Your task to perform on an android device: Add logitech g pro to the cart on newegg.com, then select checkout. Image 0: 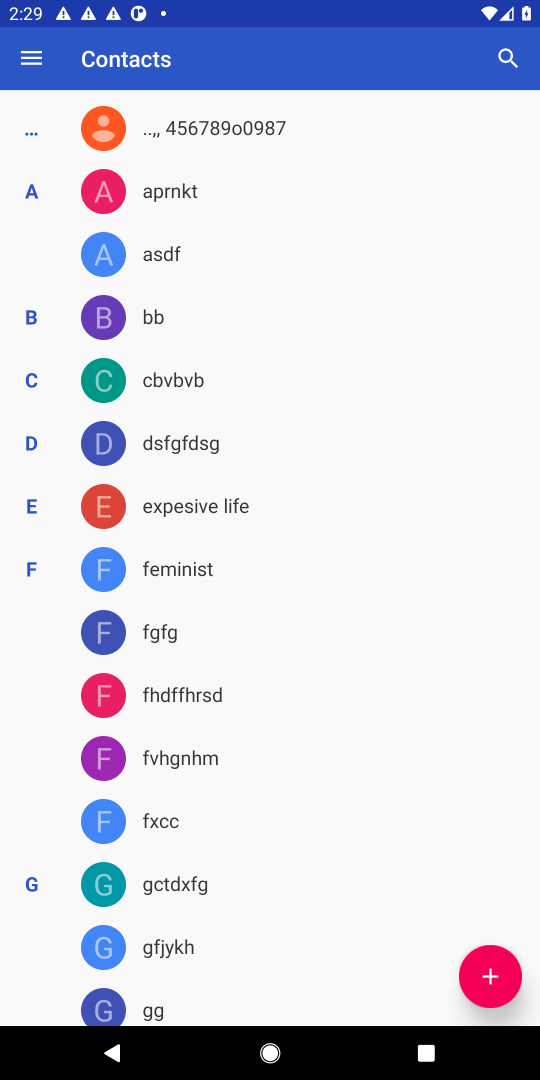
Step 0: press home button
Your task to perform on an android device: Add logitech g pro to the cart on newegg.com, then select checkout. Image 1: 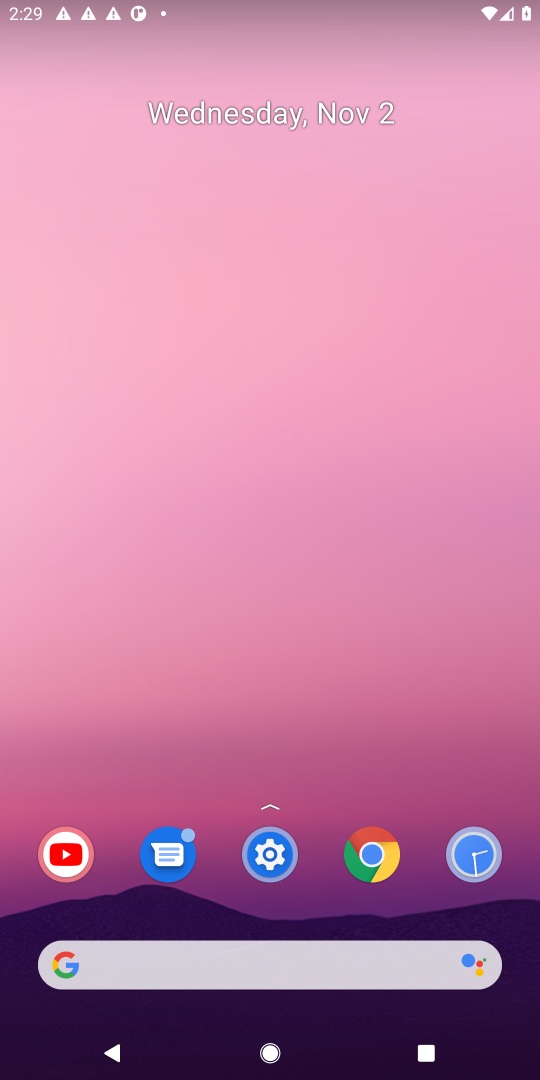
Step 1: click (270, 969)
Your task to perform on an android device: Add logitech g pro to the cart on newegg.com, then select checkout. Image 2: 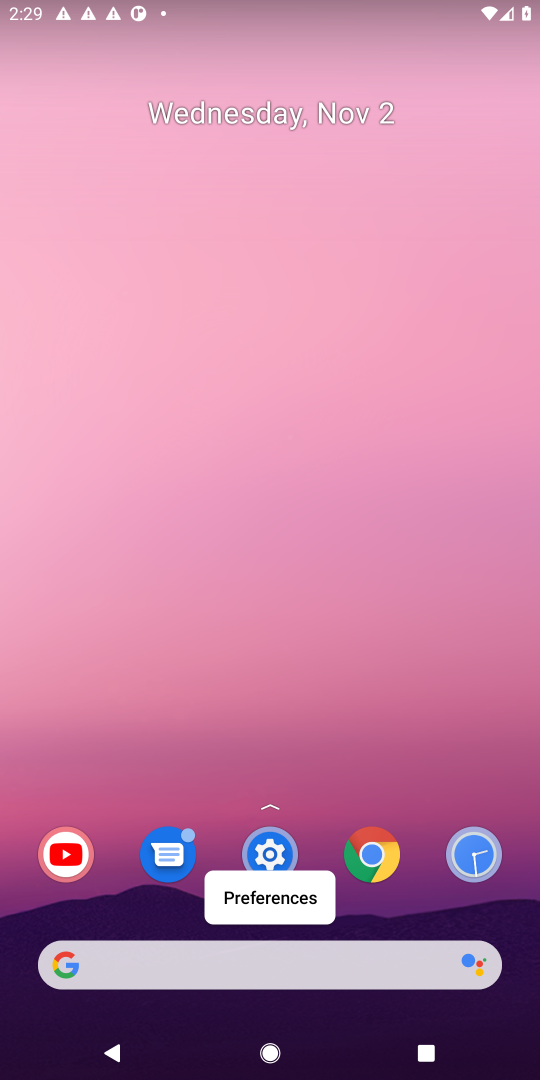
Step 2: click (366, 964)
Your task to perform on an android device: Add logitech g pro to the cart on newegg.com, then select checkout. Image 3: 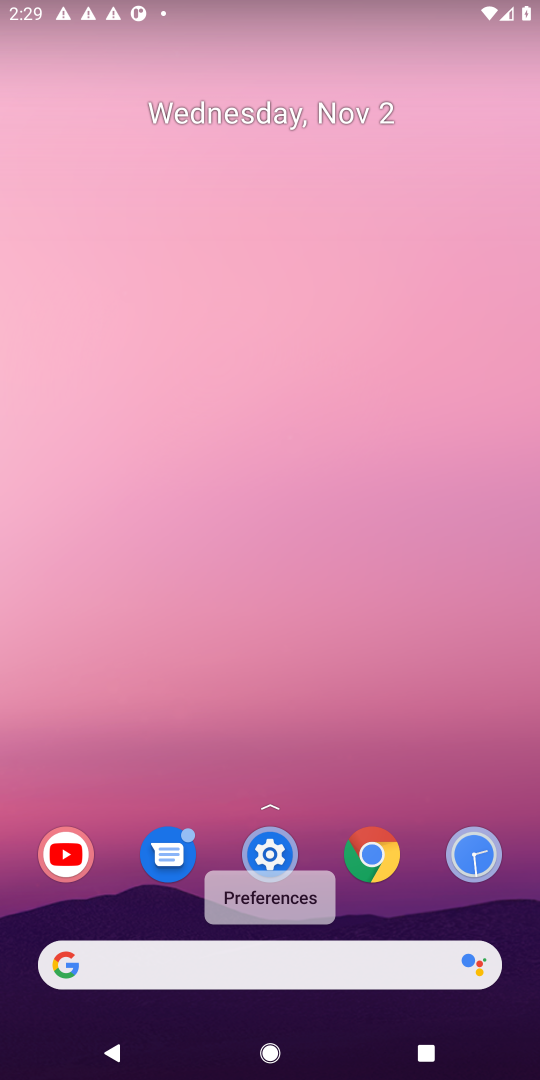
Step 3: click (366, 964)
Your task to perform on an android device: Add logitech g pro to the cart on newegg.com, then select checkout. Image 4: 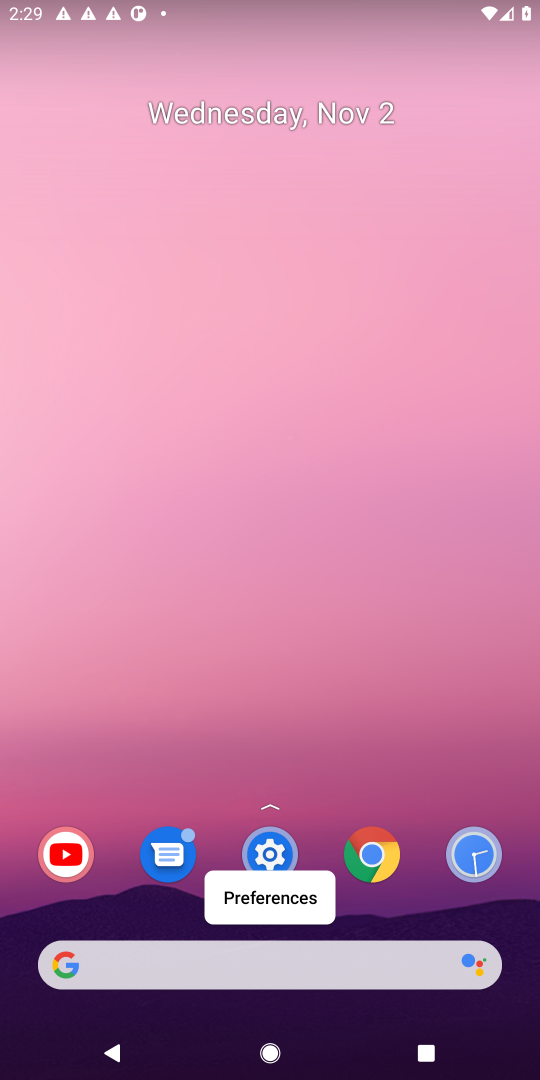
Step 4: click (263, 957)
Your task to perform on an android device: Add logitech g pro to the cart on newegg.com, then select checkout. Image 5: 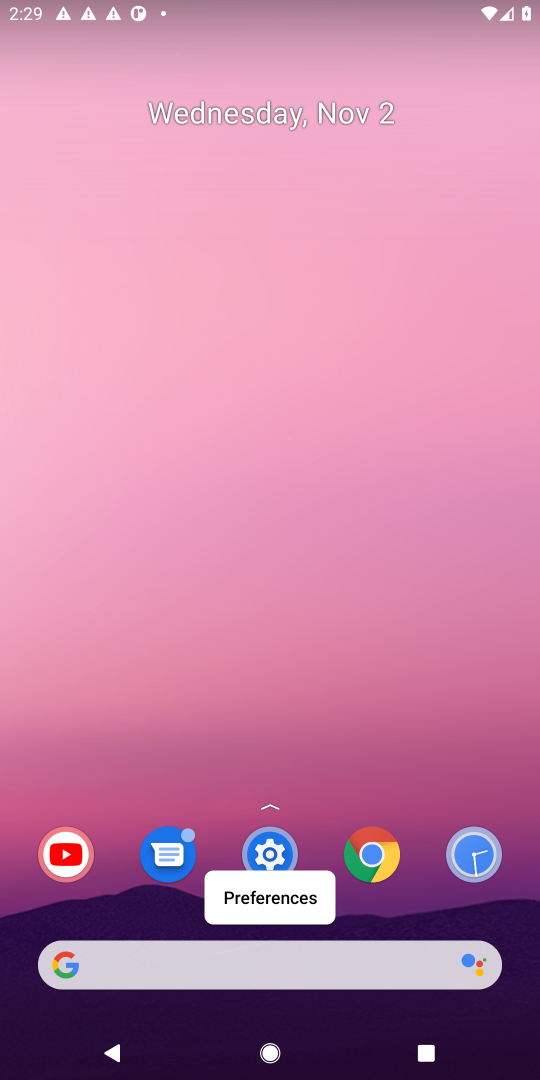
Step 5: click (346, 963)
Your task to perform on an android device: Add logitech g pro to the cart on newegg.com, then select checkout. Image 6: 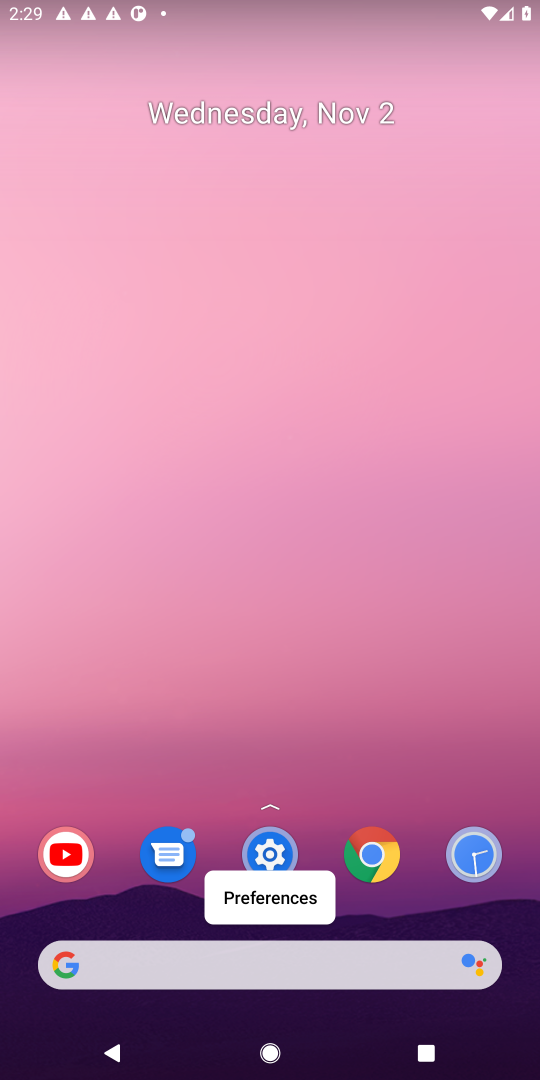
Step 6: click (335, 956)
Your task to perform on an android device: Add logitech g pro to the cart on newegg.com, then select checkout. Image 7: 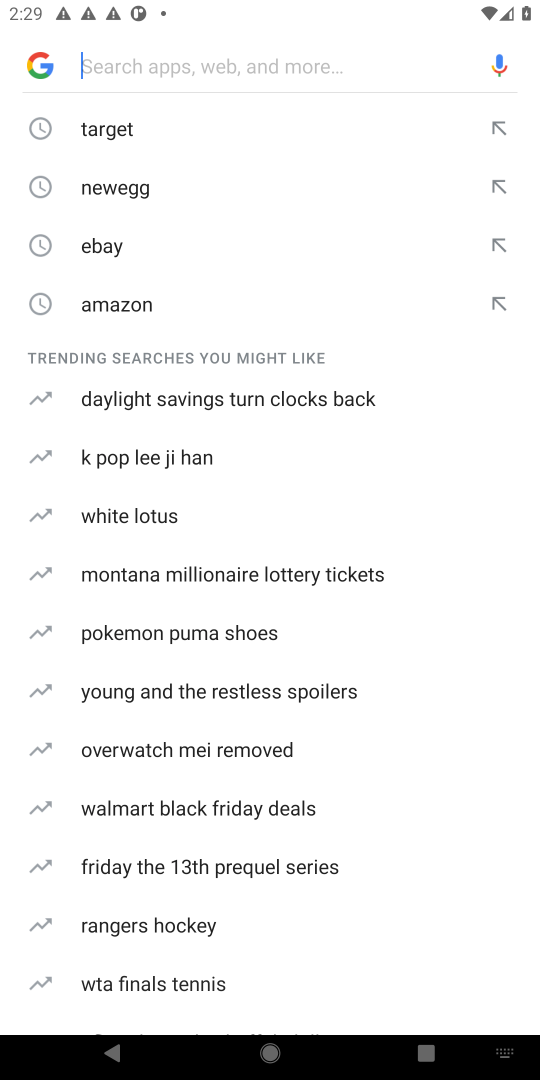
Step 7: click (337, 954)
Your task to perform on an android device: Add logitech g pro to the cart on newegg.com, then select checkout. Image 8: 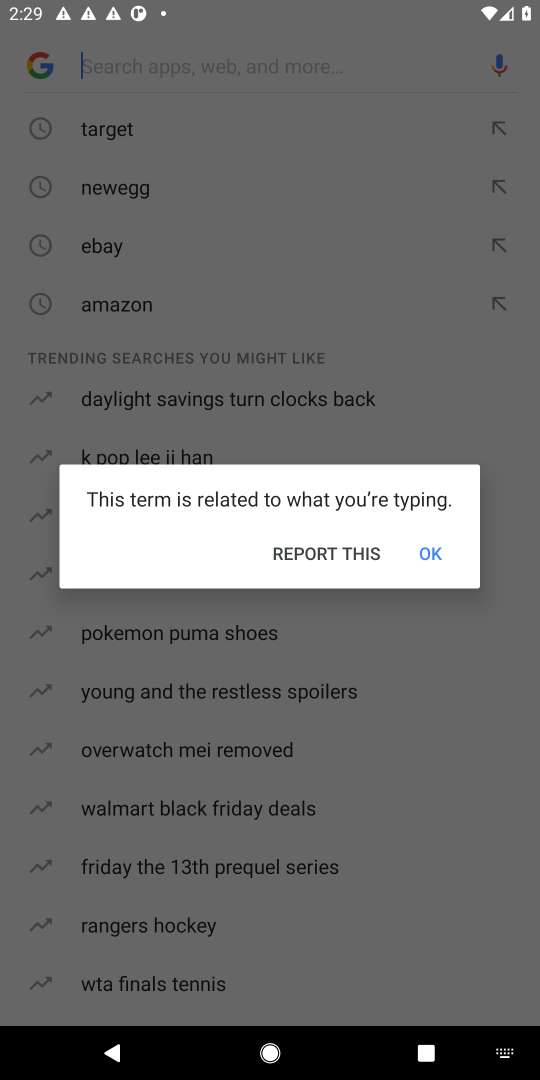
Step 8: type "newegg.com"
Your task to perform on an android device: Add logitech g pro to the cart on newegg.com, then select checkout. Image 9: 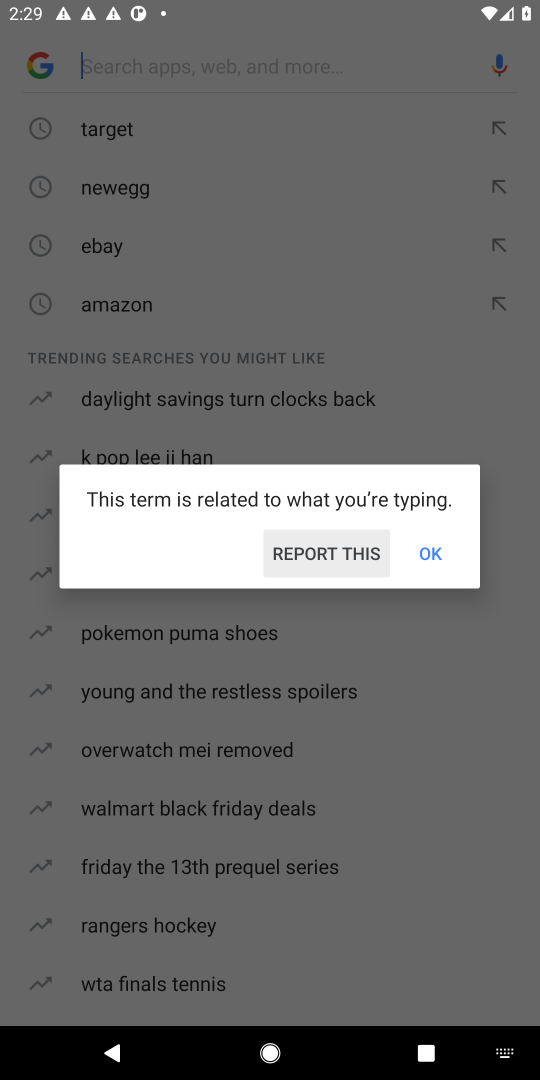
Step 9: type ""
Your task to perform on an android device: Add logitech g pro to the cart on newegg.com, then select checkout. Image 10: 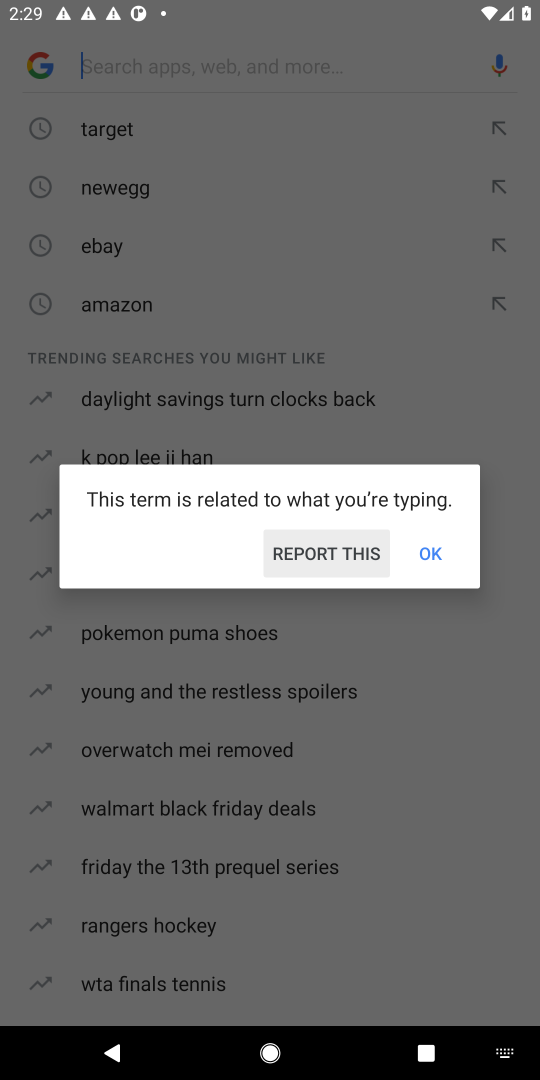
Step 10: press enter
Your task to perform on an android device: Add logitech g pro to the cart on newegg.com, then select checkout. Image 11: 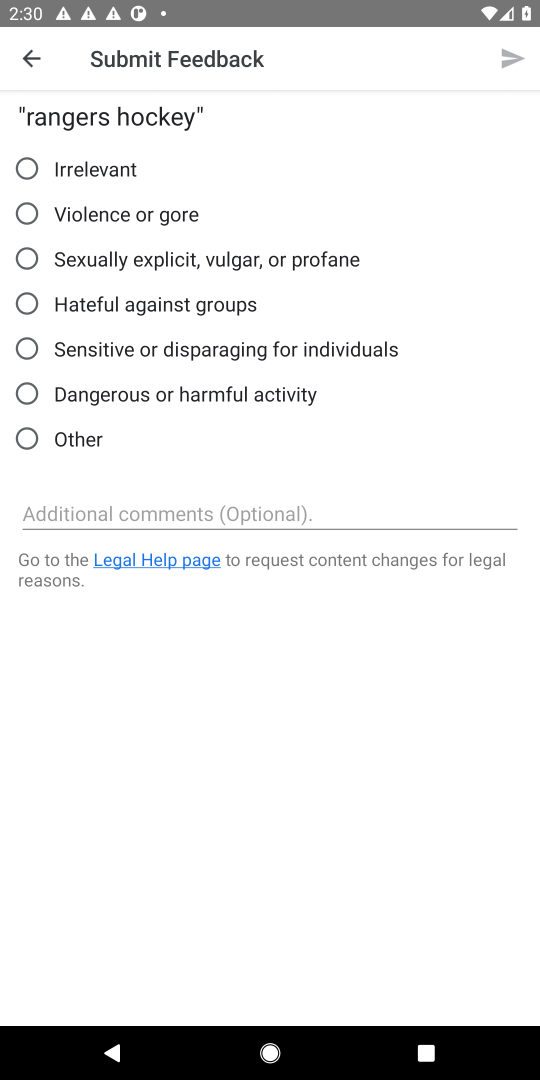
Step 11: click (28, 62)
Your task to perform on an android device: Add logitech g pro to the cart on newegg.com, then select checkout. Image 12: 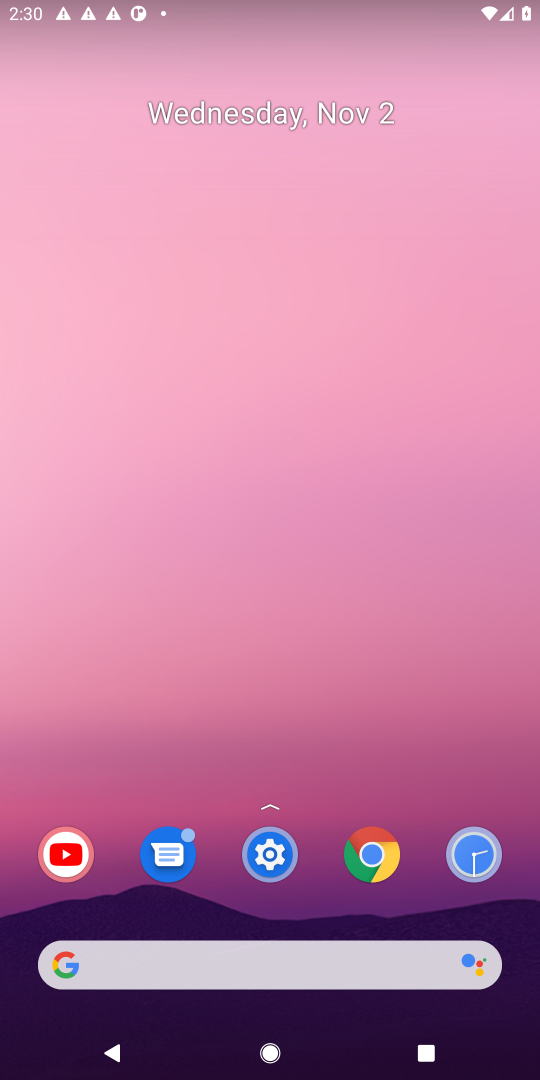
Step 12: click (380, 947)
Your task to perform on an android device: Add logitech g pro to the cart on newegg.com, then select checkout. Image 13: 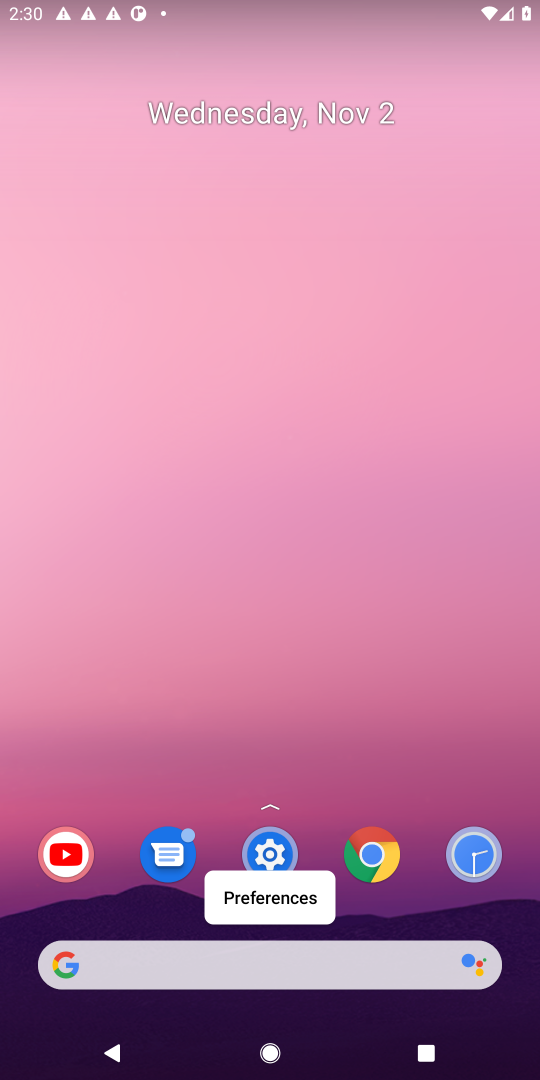
Step 13: click (384, 948)
Your task to perform on an android device: Add logitech g pro to the cart on newegg.com, then select checkout. Image 14: 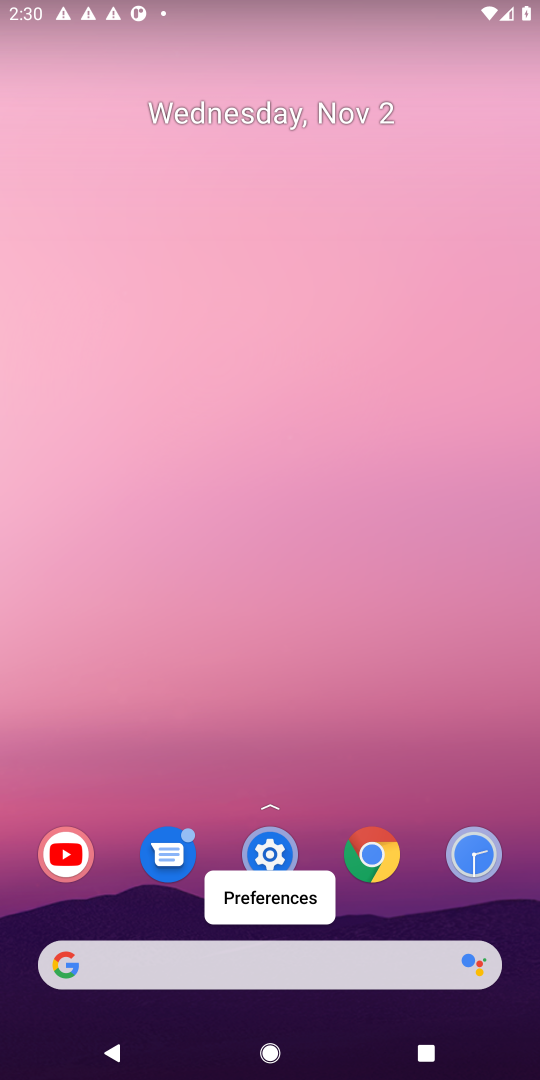
Step 14: click (387, 966)
Your task to perform on an android device: Add logitech g pro to the cart on newegg.com, then select checkout. Image 15: 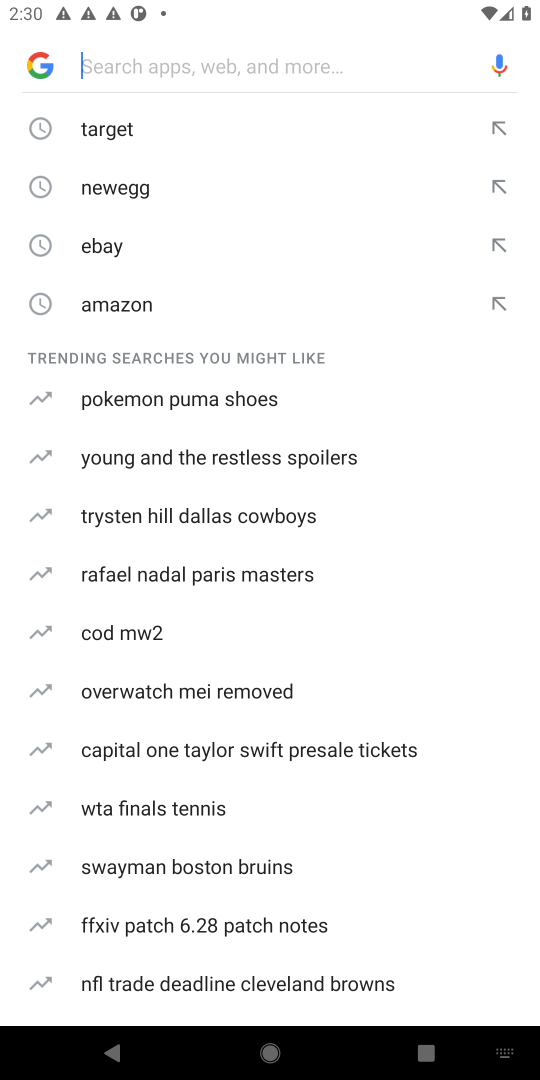
Step 15: click (394, 960)
Your task to perform on an android device: Add logitech g pro to the cart on newegg.com, then select checkout. Image 16: 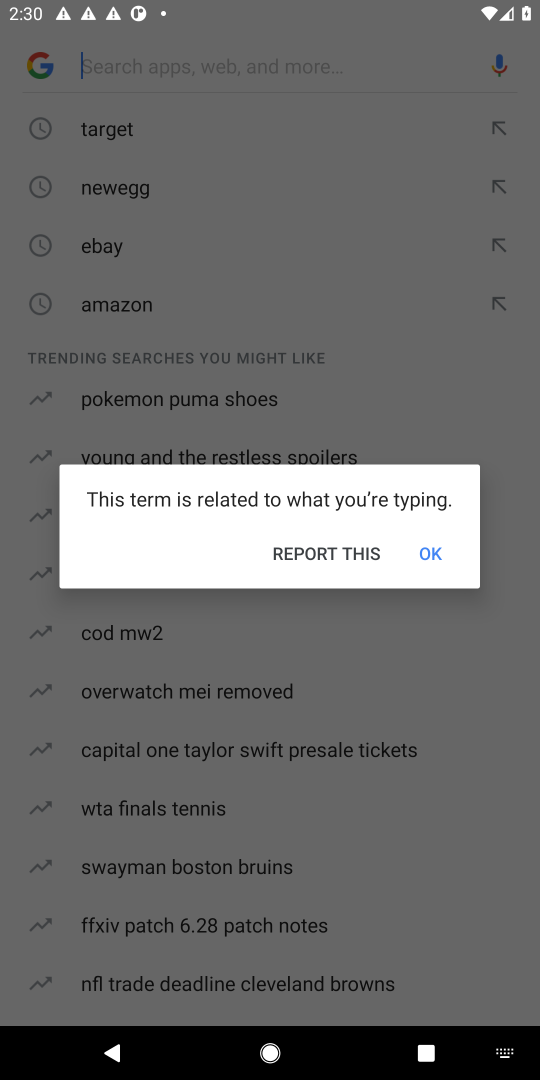
Step 16: click (394, 960)
Your task to perform on an android device: Add logitech g pro to the cart on newegg.com, then select checkout. Image 17: 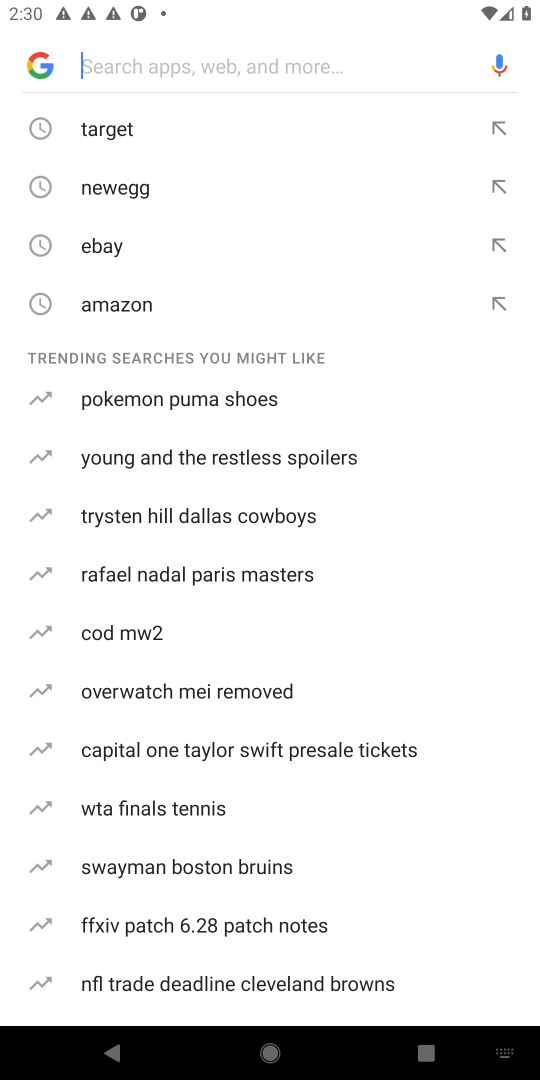
Step 17: click (394, 960)
Your task to perform on an android device: Add logitech g pro to the cart on newegg.com, then select checkout. Image 18: 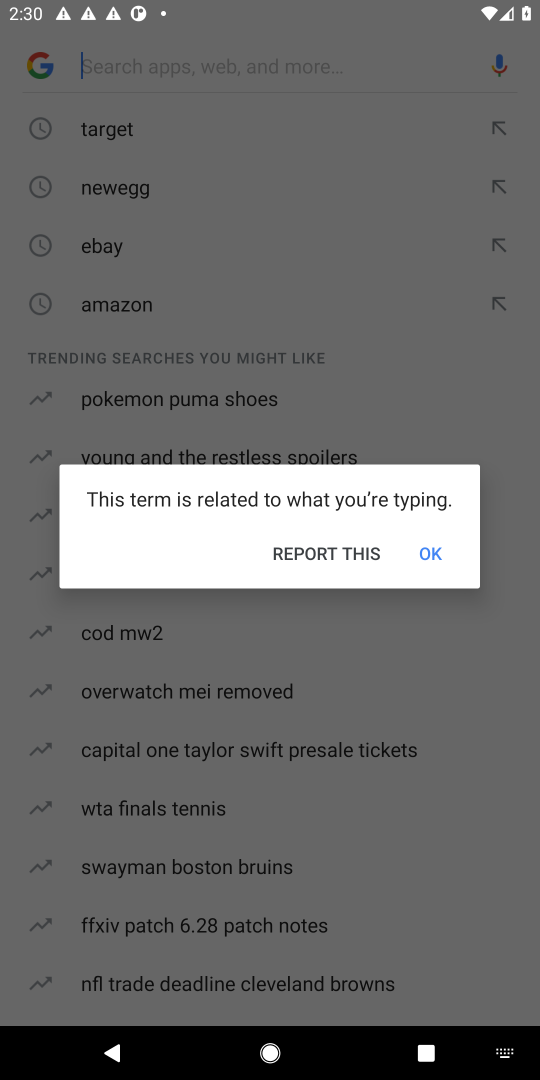
Step 18: click (467, 613)
Your task to perform on an android device: Add logitech g pro to the cart on newegg.com, then select checkout. Image 19: 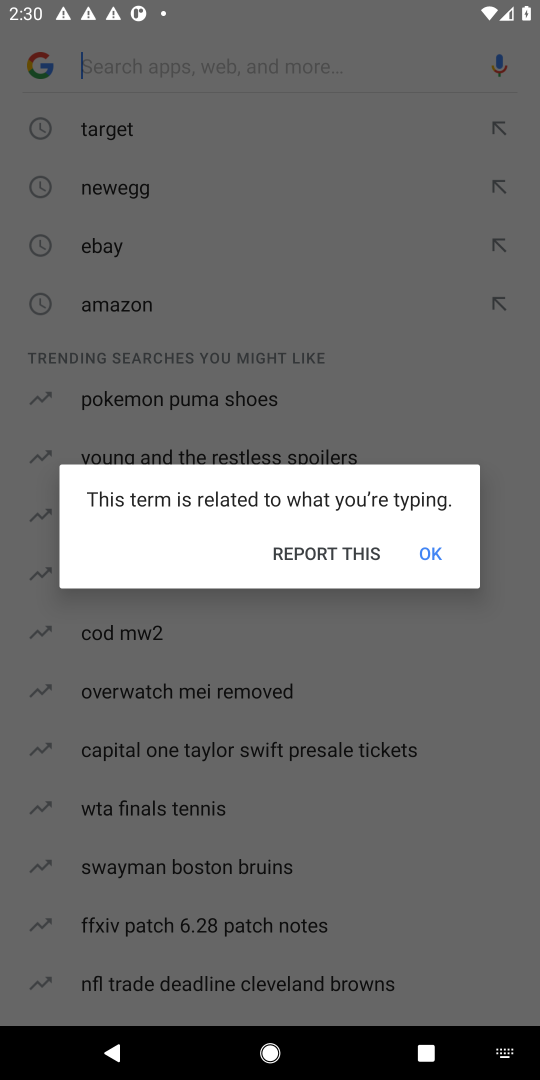
Step 19: click (436, 561)
Your task to perform on an android device: Add logitech g pro to the cart on newegg.com, then select checkout. Image 20: 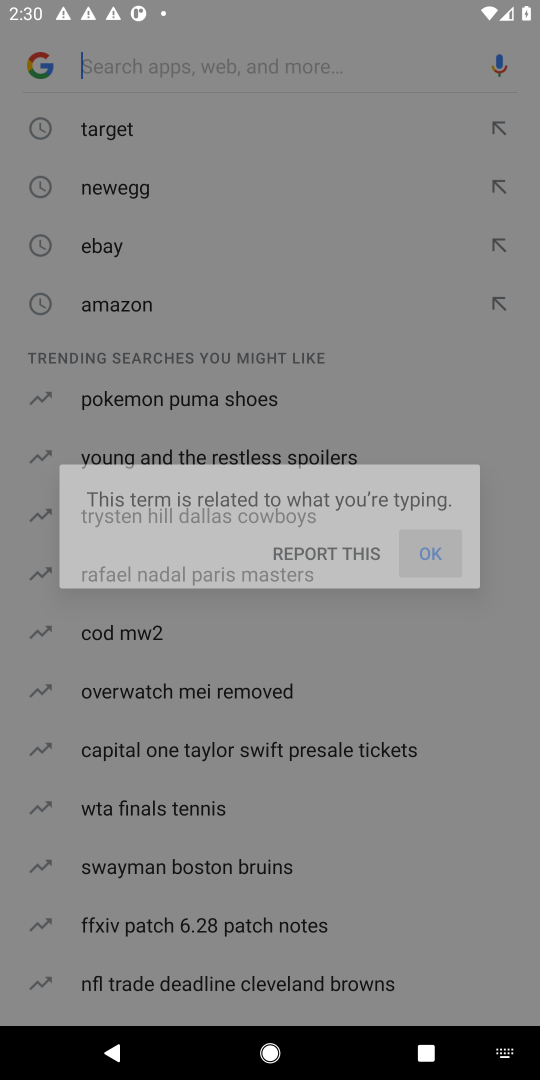
Step 20: click (421, 544)
Your task to perform on an android device: Add logitech g pro to the cart on newegg.com, then select checkout. Image 21: 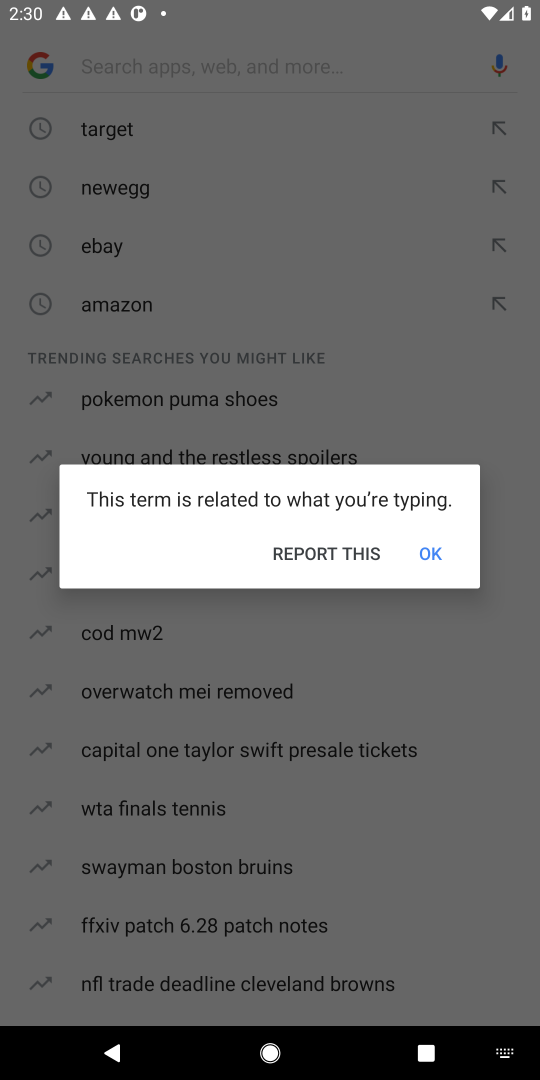
Step 21: click (438, 565)
Your task to perform on an android device: Add logitech g pro to the cart on newegg.com, then select checkout. Image 22: 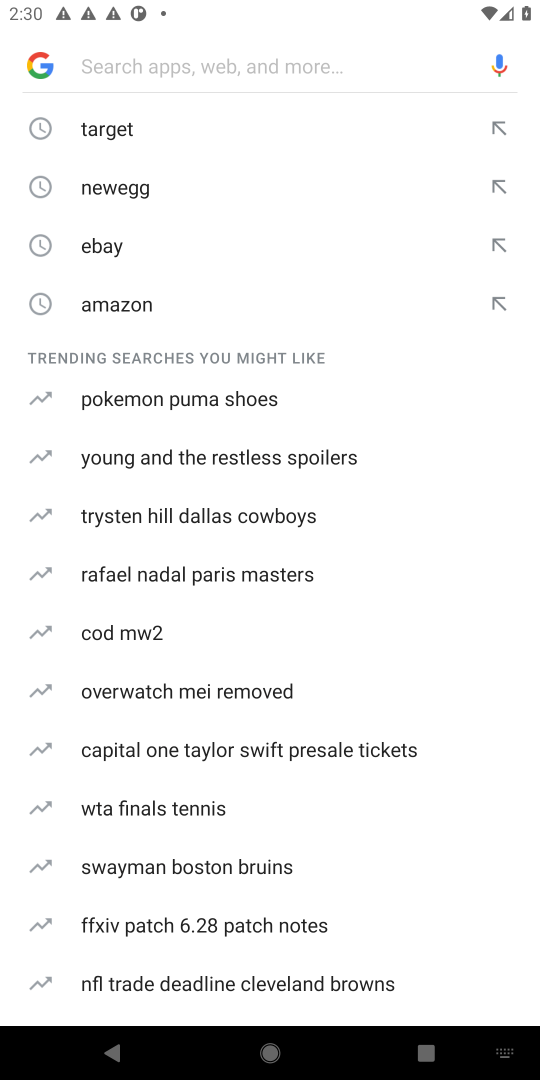
Step 22: click (130, 200)
Your task to perform on an android device: Add logitech g pro to the cart on newegg.com, then select checkout. Image 23: 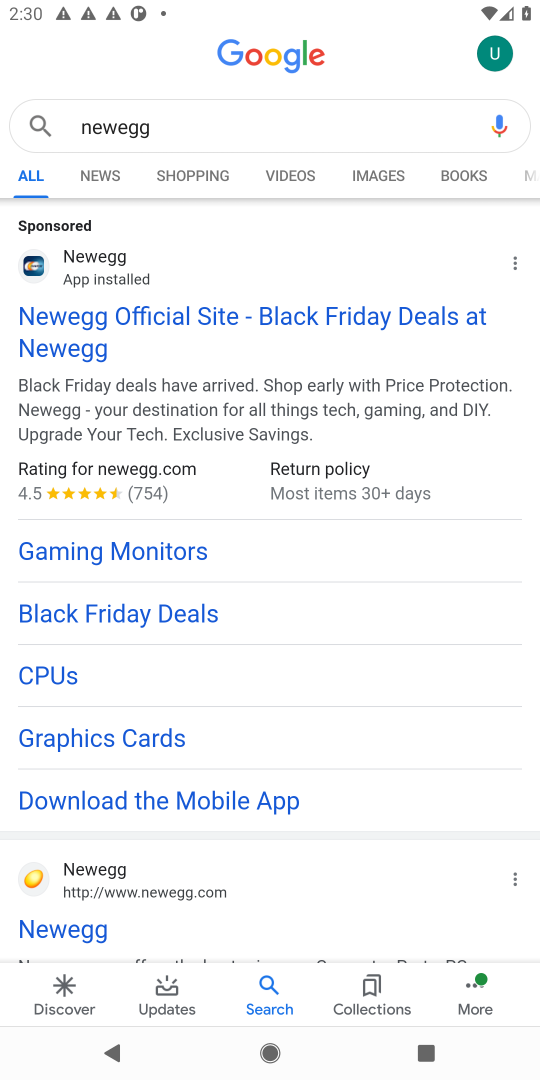
Step 23: click (147, 340)
Your task to perform on an android device: Add logitech g pro to the cart on newegg.com, then select checkout. Image 24: 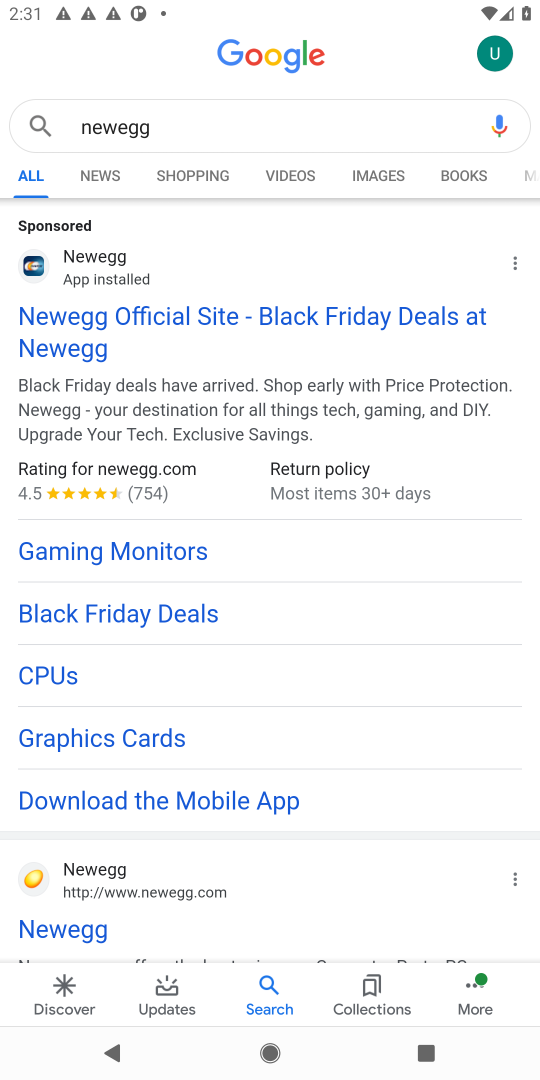
Step 24: click (145, 330)
Your task to perform on an android device: Add logitech g pro to the cart on newegg.com, then select checkout. Image 25: 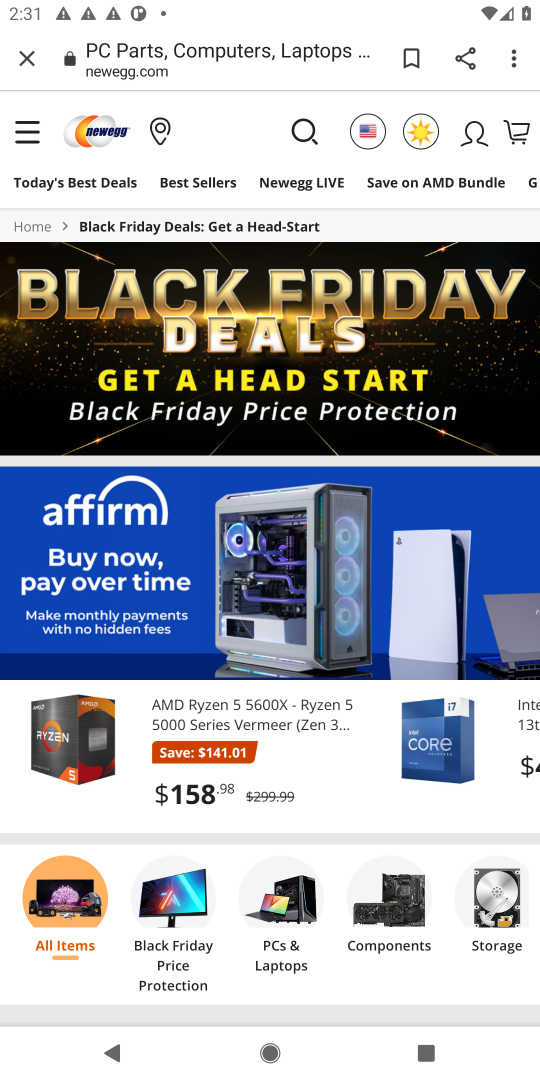
Step 25: drag from (254, 868) to (206, 491)
Your task to perform on an android device: Add logitech g pro to the cart on newegg.com, then select checkout. Image 26: 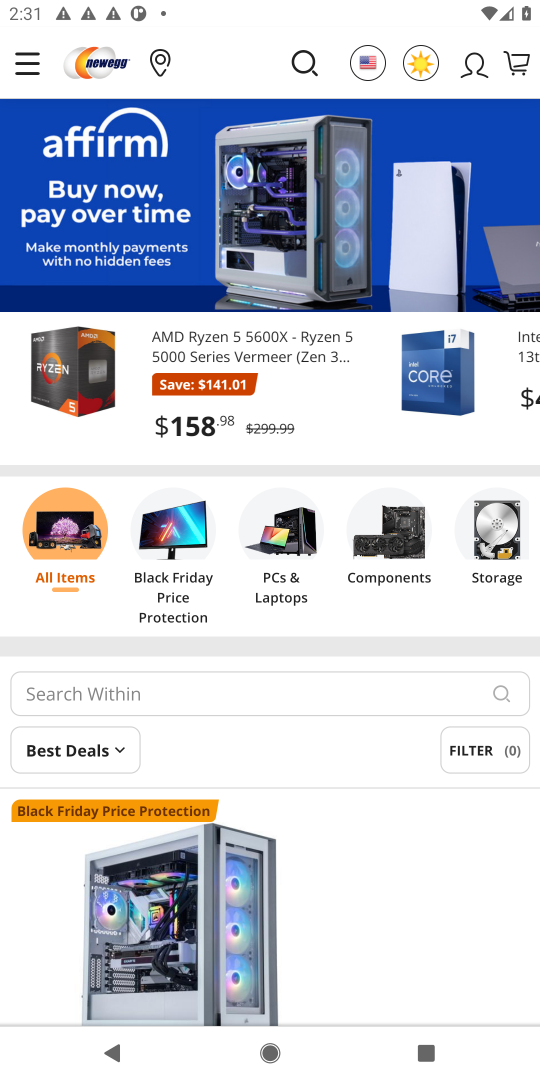
Step 26: click (257, 707)
Your task to perform on an android device: Add logitech g pro to the cart on newegg.com, then select checkout. Image 27: 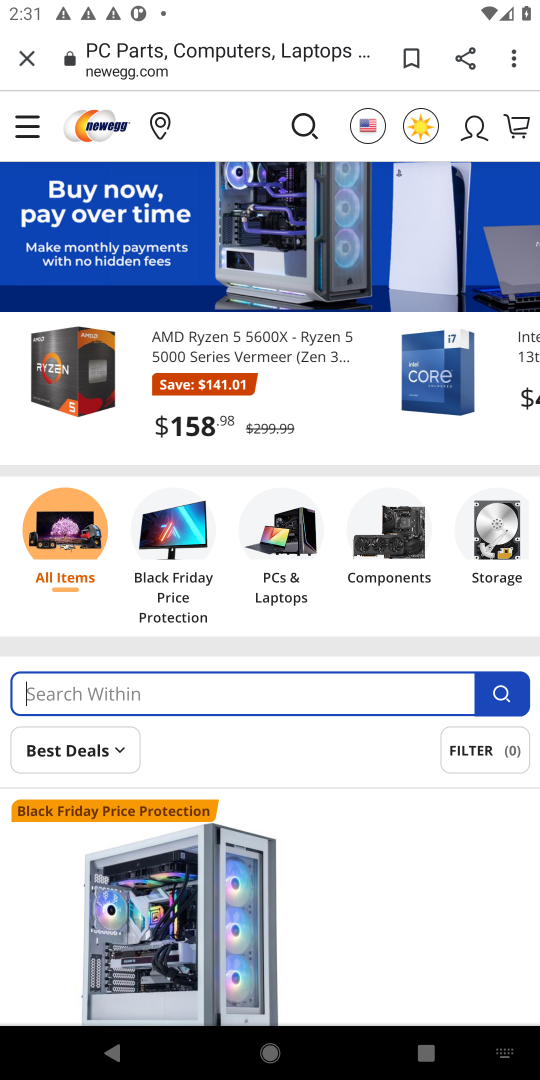
Step 27: type " logitech g pro"
Your task to perform on an android device: Add logitech g pro to the cart on newegg.com, then select checkout. Image 28: 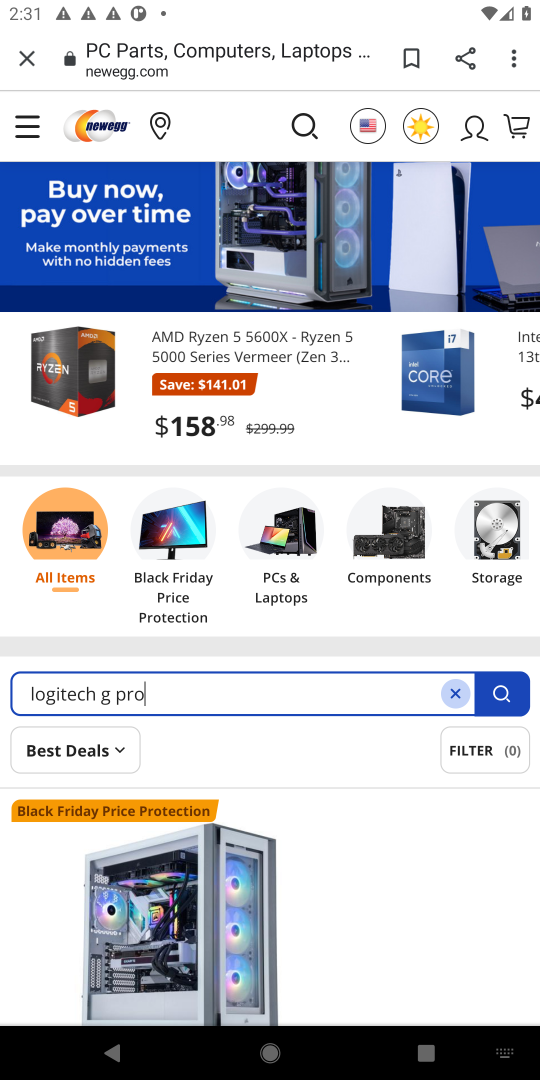
Step 28: type ""
Your task to perform on an android device: Add logitech g pro to the cart on newegg.com, then select checkout. Image 29: 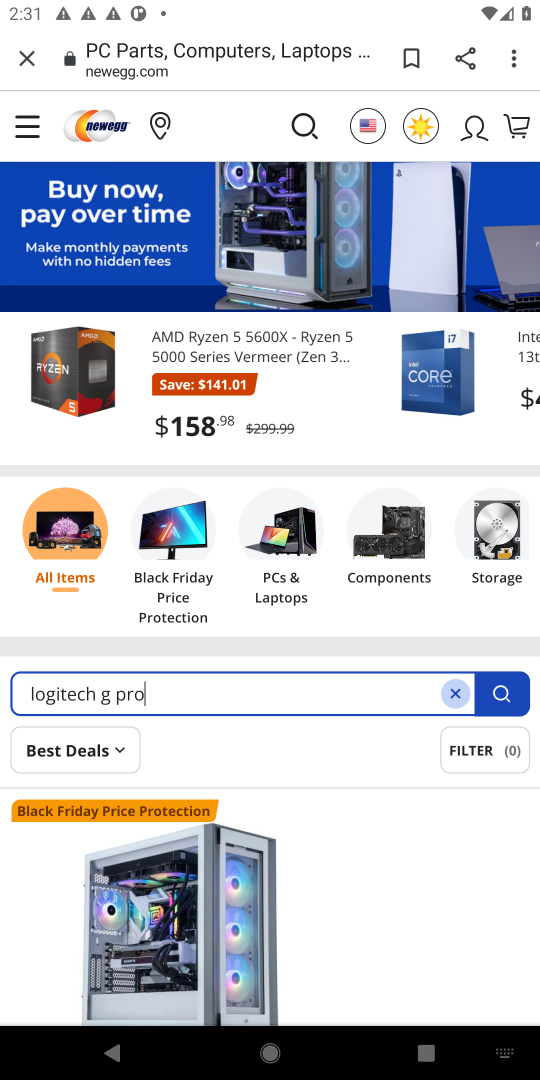
Step 29: press enter
Your task to perform on an android device: Add logitech g pro to the cart on newegg.com, then select checkout. Image 30: 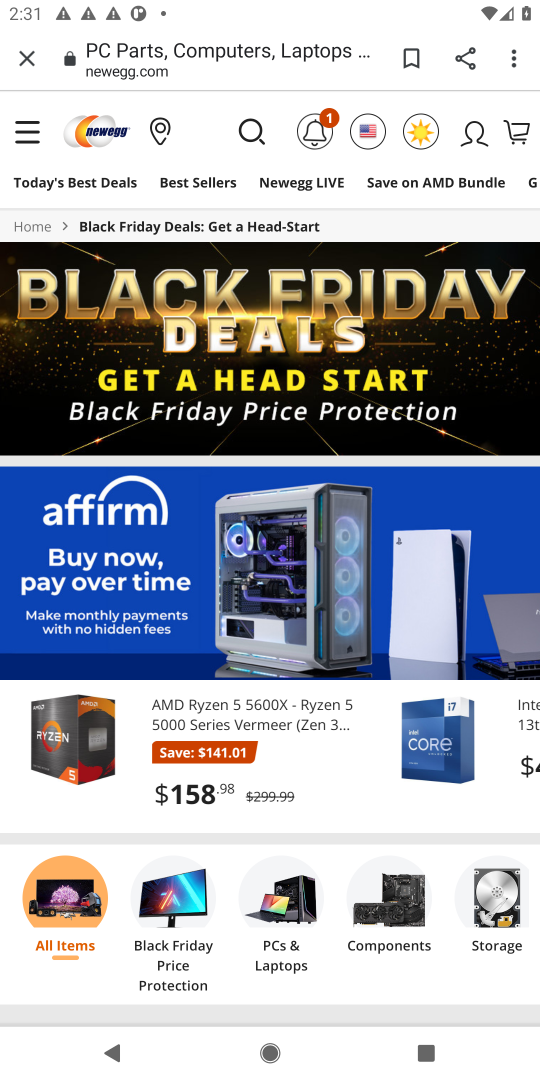
Step 30: drag from (367, 865) to (287, 366)
Your task to perform on an android device: Add logitech g pro to the cart on newegg.com, then select checkout. Image 31: 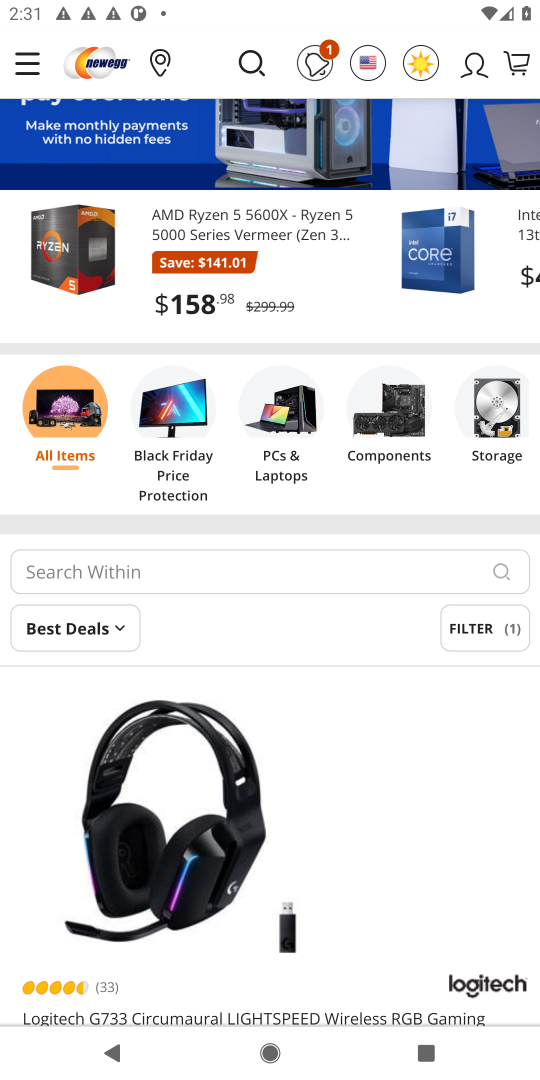
Step 31: drag from (398, 800) to (346, 454)
Your task to perform on an android device: Add logitech g pro to the cart on newegg.com, then select checkout. Image 32: 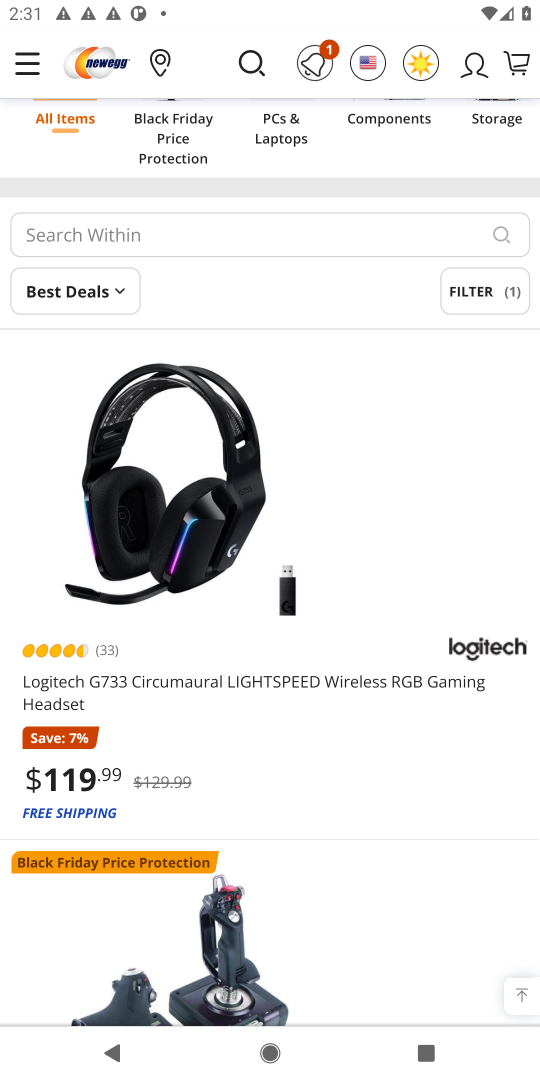
Step 32: drag from (285, 762) to (269, 489)
Your task to perform on an android device: Add logitech g pro to the cart on newegg.com, then select checkout. Image 33: 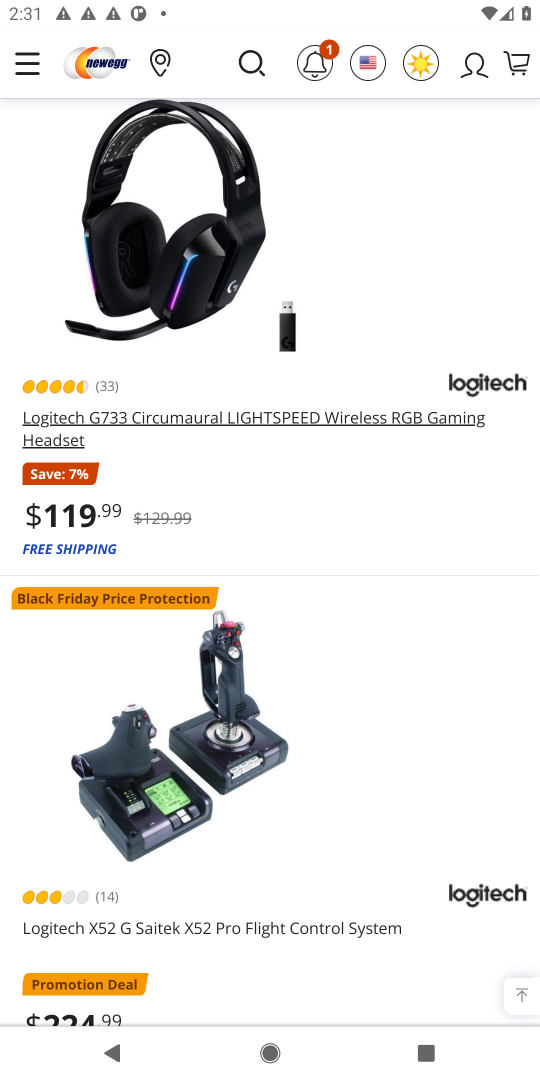
Step 33: click (239, 419)
Your task to perform on an android device: Add logitech g pro to the cart on newegg.com, then select checkout. Image 34: 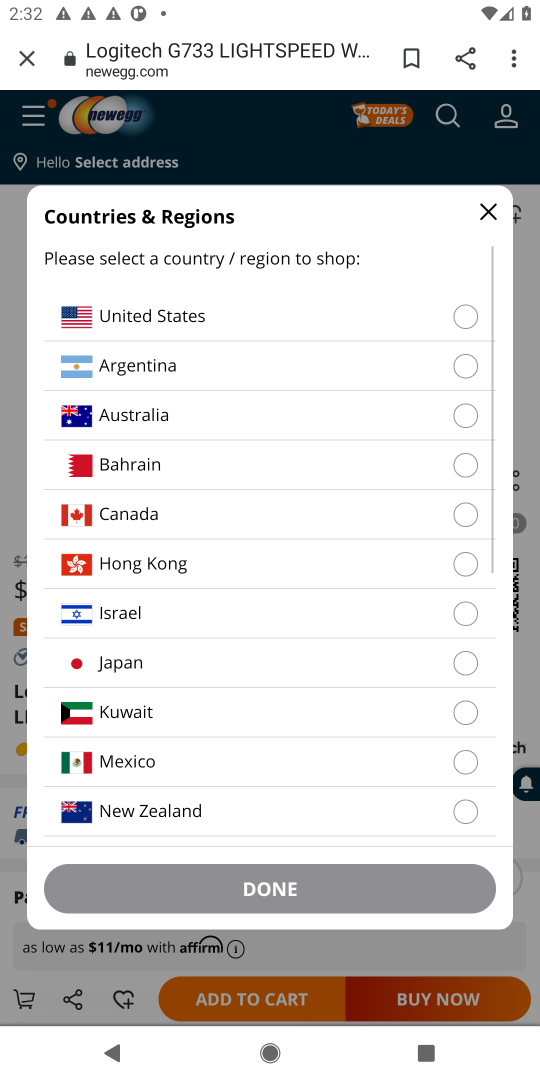
Step 34: click (378, 341)
Your task to perform on an android device: Add logitech g pro to the cart on newegg.com, then select checkout. Image 35: 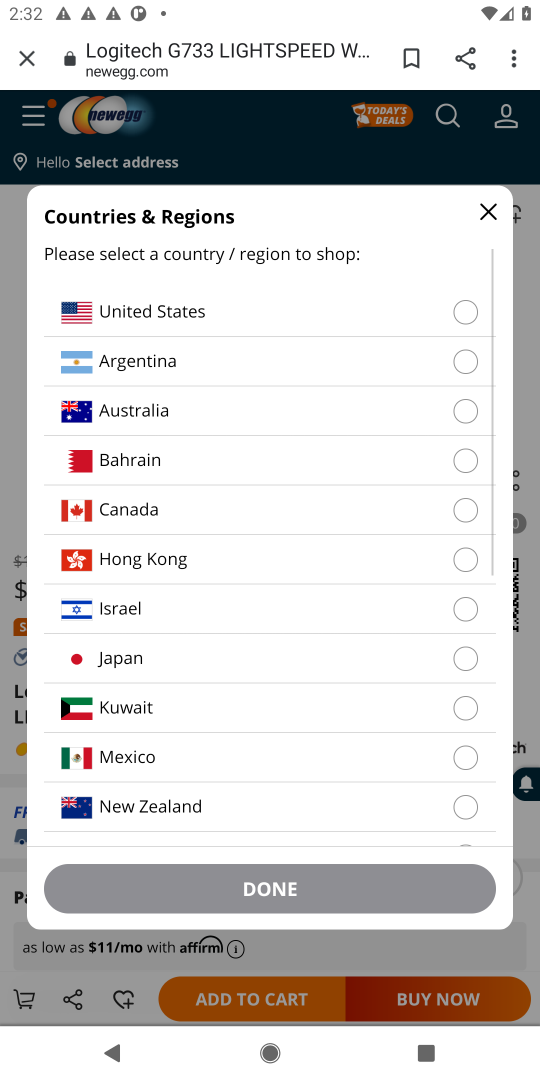
Step 35: click (389, 322)
Your task to perform on an android device: Add logitech g pro to the cart on newegg.com, then select checkout. Image 36: 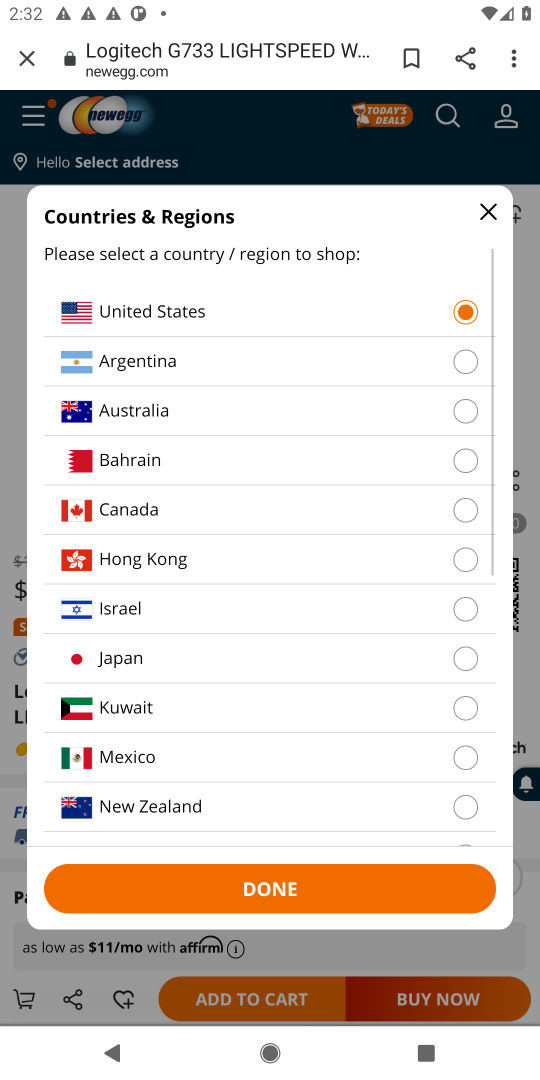
Step 36: click (327, 884)
Your task to perform on an android device: Add logitech g pro to the cart on newegg.com, then select checkout. Image 37: 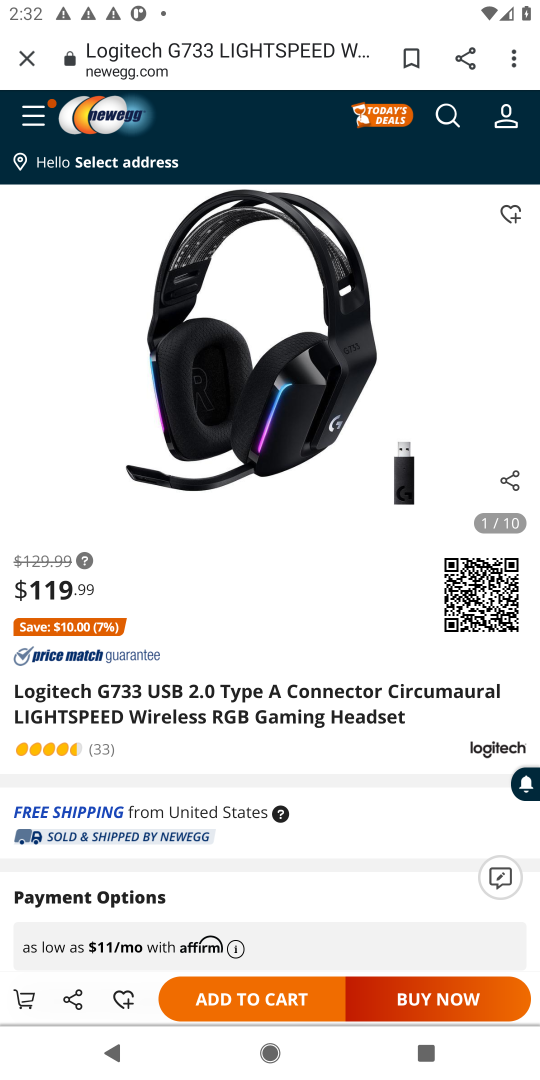
Step 37: click (282, 996)
Your task to perform on an android device: Add logitech g pro to the cart on newegg.com, then select checkout. Image 38: 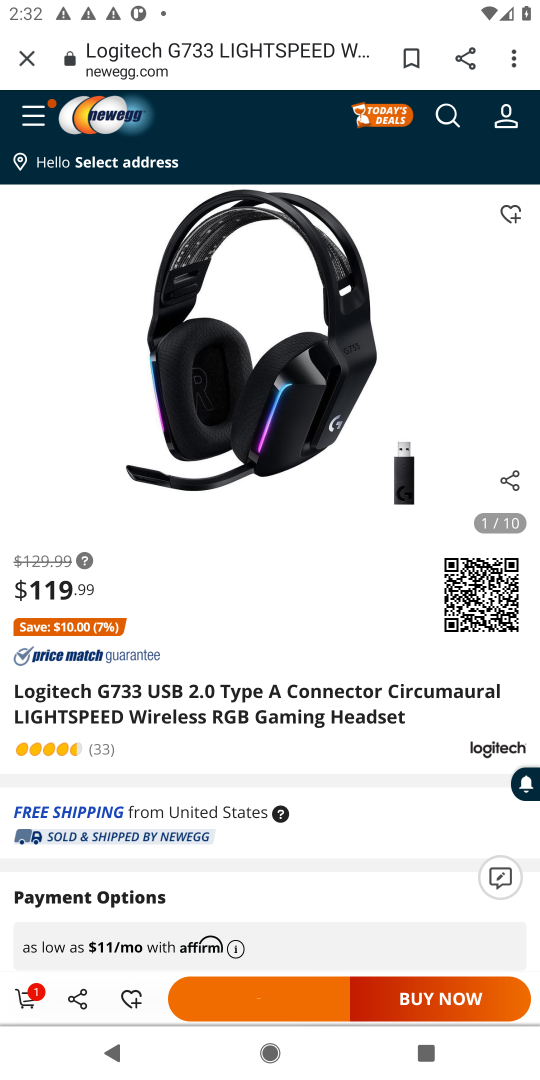
Step 38: click (282, 996)
Your task to perform on an android device: Add logitech g pro to the cart on newegg.com, then select checkout. Image 39: 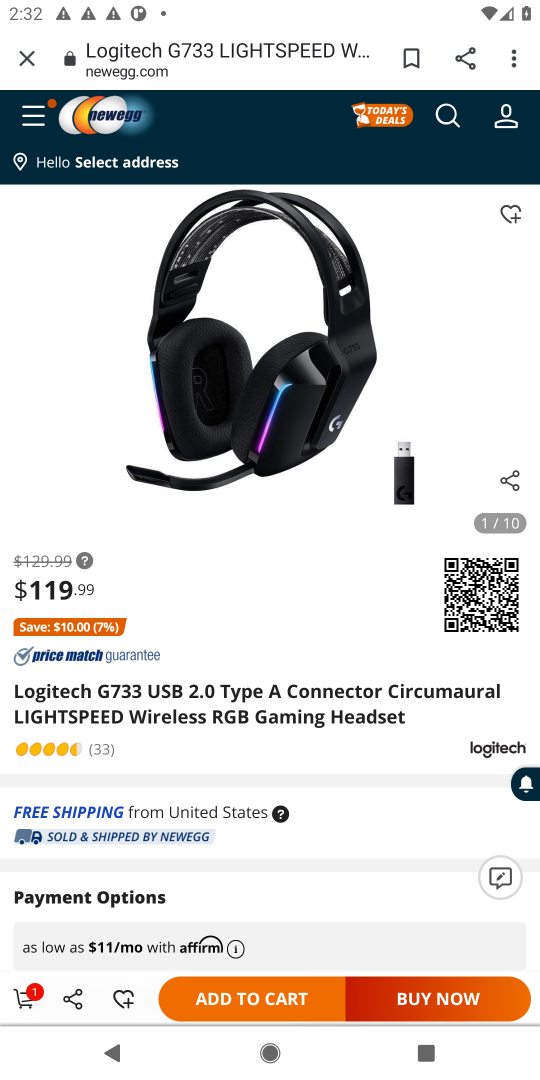
Step 39: task complete